Your task to perform on an android device: Open internet settings Image 0: 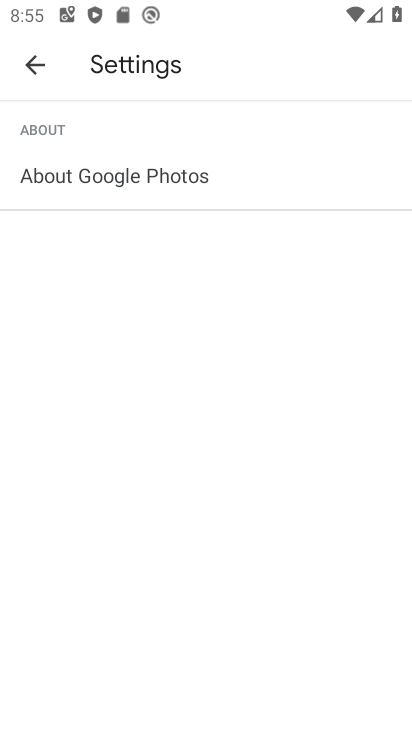
Step 0: press home button
Your task to perform on an android device: Open internet settings Image 1: 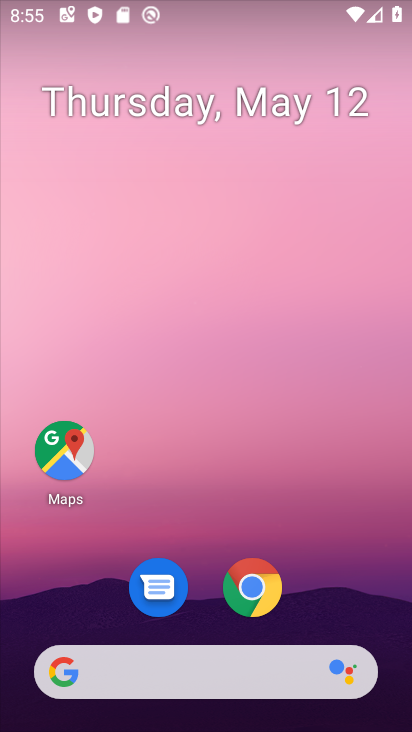
Step 1: drag from (342, 505) to (360, 43)
Your task to perform on an android device: Open internet settings Image 2: 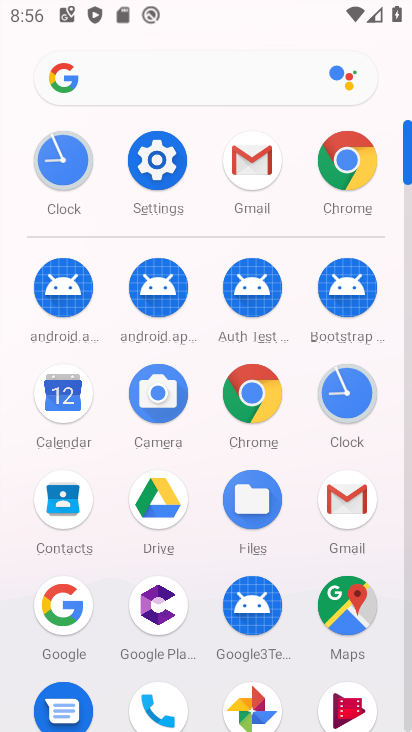
Step 2: click (157, 133)
Your task to perform on an android device: Open internet settings Image 3: 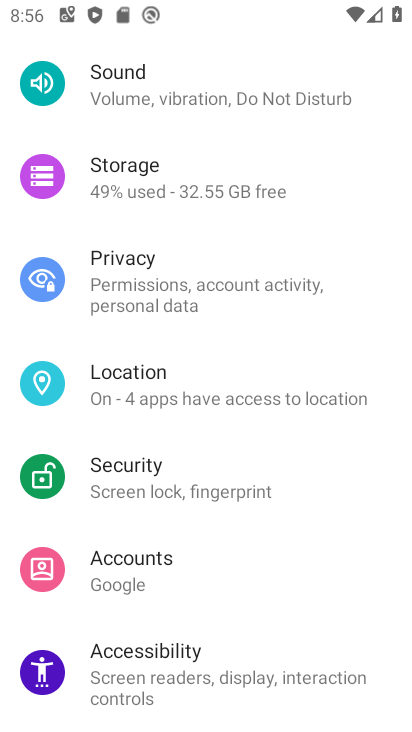
Step 3: drag from (185, 146) to (185, 687)
Your task to perform on an android device: Open internet settings Image 4: 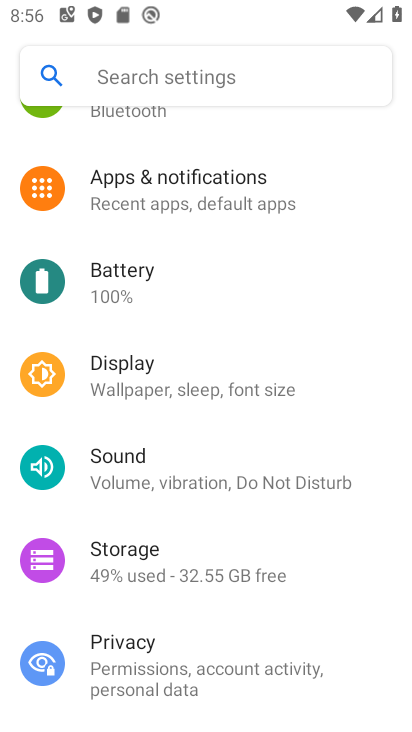
Step 4: drag from (177, 182) to (171, 617)
Your task to perform on an android device: Open internet settings Image 5: 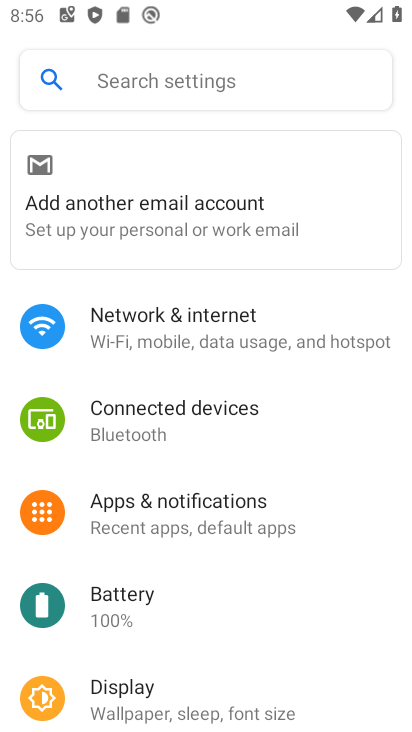
Step 5: click (167, 326)
Your task to perform on an android device: Open internet settings Image 6: 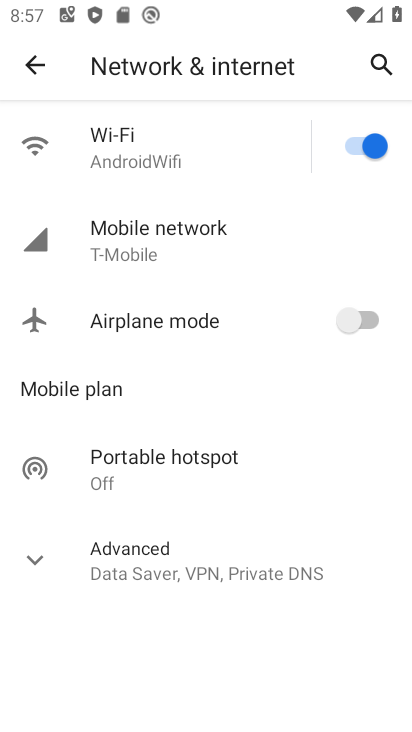
Step 6: task complete